Your task to perform on an android device: turn notification dots on Image 0: 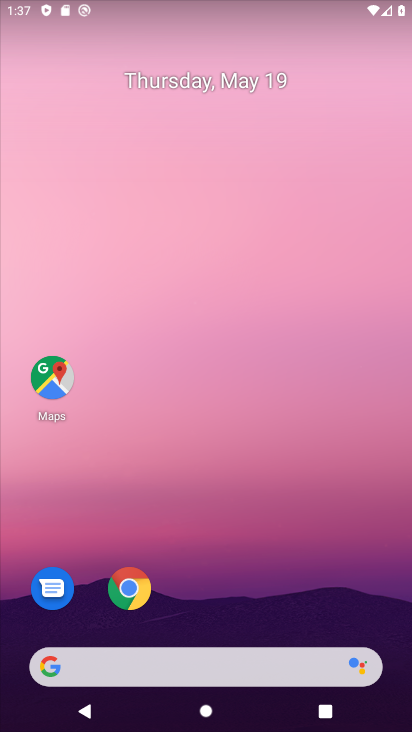
Step 0: drag from (238, 570) to (242, 27)
Your task to perform on an android device: turn notification dots on Image 1: 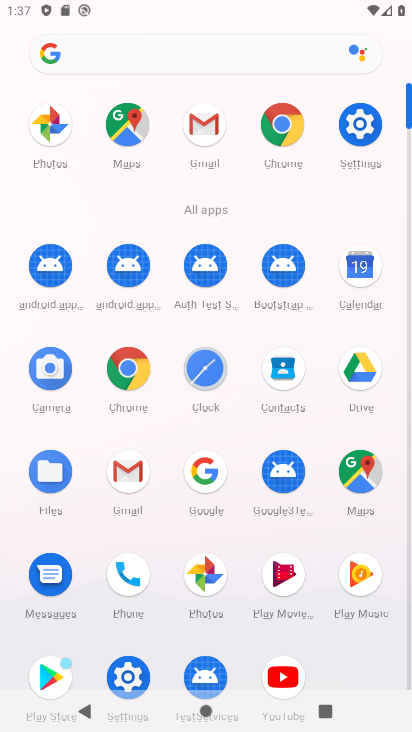
Step 1: click (376, 112)
Your task to perform on an android device: turn notification dots on Image 2: 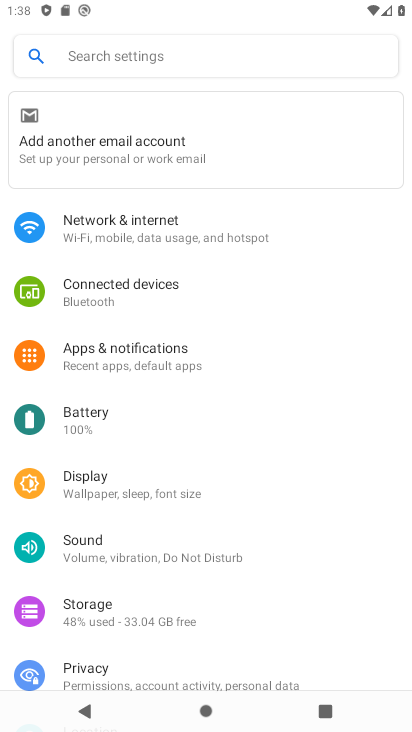
Step 2: click (133, 362)
Your task to perform on an android device: turn notification dots on Image 3: 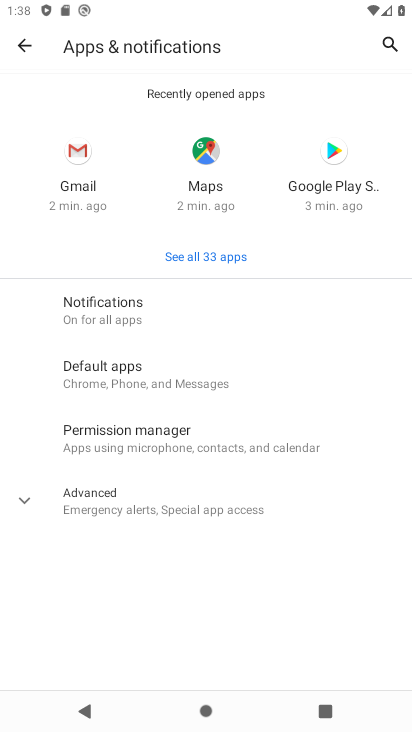
Step 3: click (197, 304)
Your task to perform on an android device: turn notification dots on Image 4: 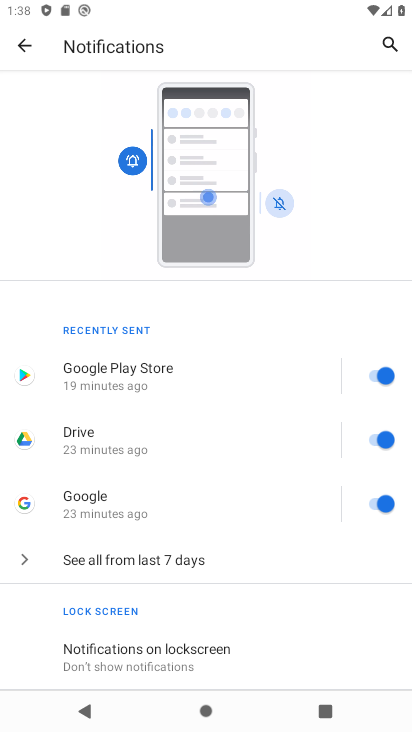
Step 4: drag from (186, 598) to (231, 141)
Your task to perform on an android device: turn notification dots on Image 5: 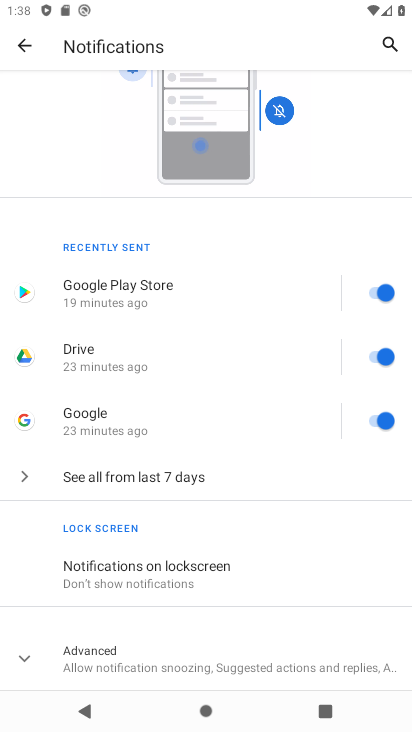
Step 5: drag from (181, 500) to (240, 107)
Your task to perform on an android device: turn notification dots on Image 6: 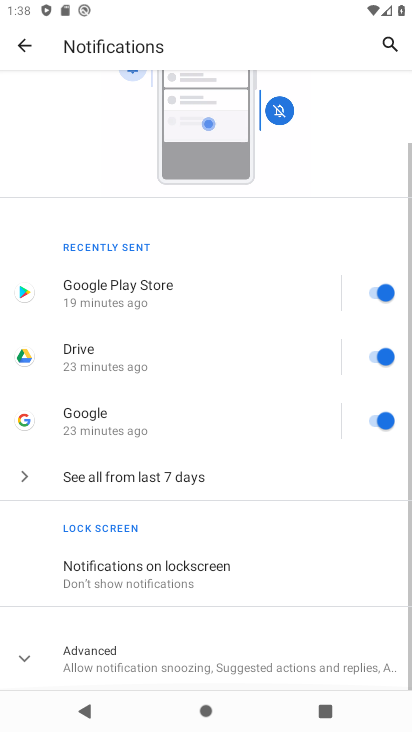
Step 6: click (127, 665)
Your task to perform on an android device: turn notification dots on Image 7: 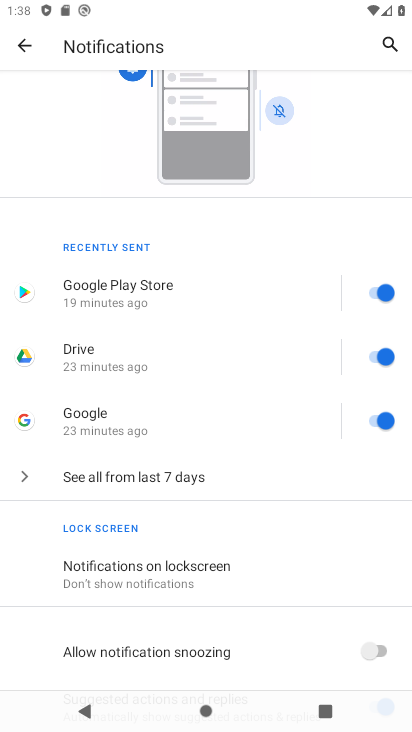
Step 7: task complete